Your task to perform on an android device: move an email to a new category in the gmail app Image 0: 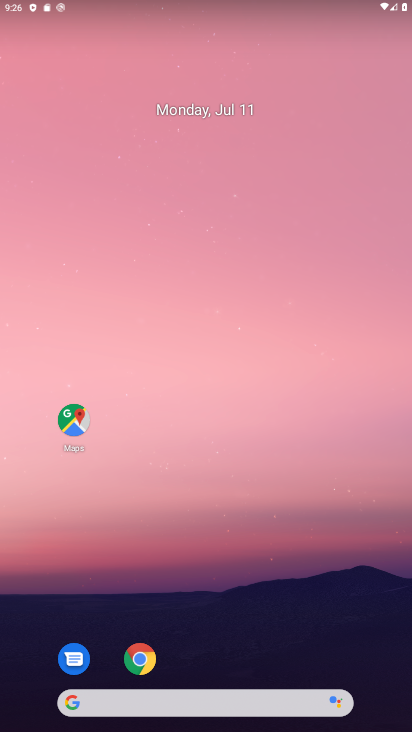
Step 0: drag from (282, 612) to (340, 22)
Your task to perform on an android device: move an email to a new category in the gmail app Image 1: 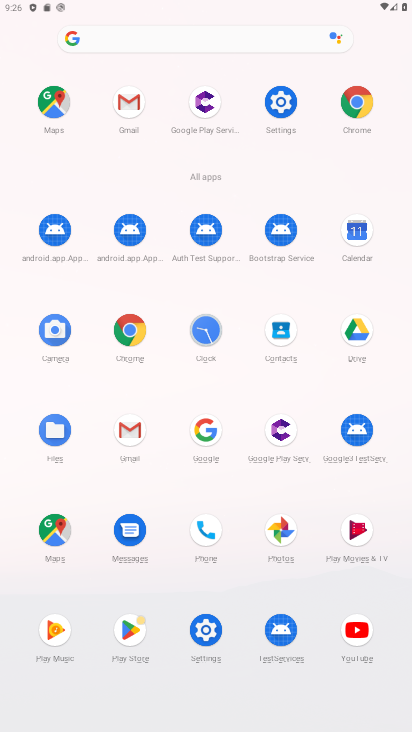
Step 1: click (140, 107)
Your task to perform on an android device: move an email to a new category in the gmail app Image 2: 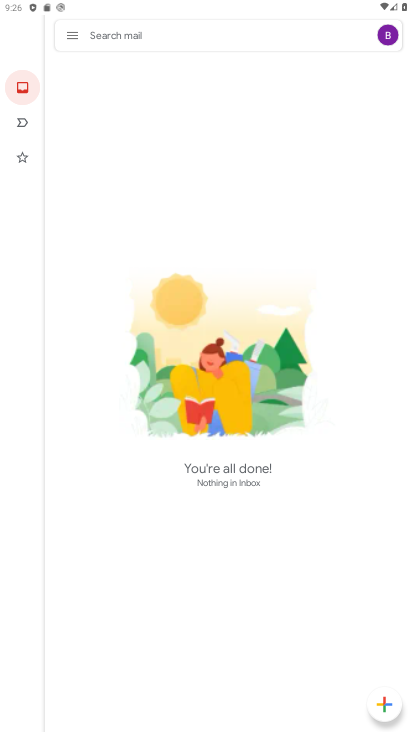
Step 2: press home button
Your task to perform on an android device: move an email to a new category in the gmail app Image 3: 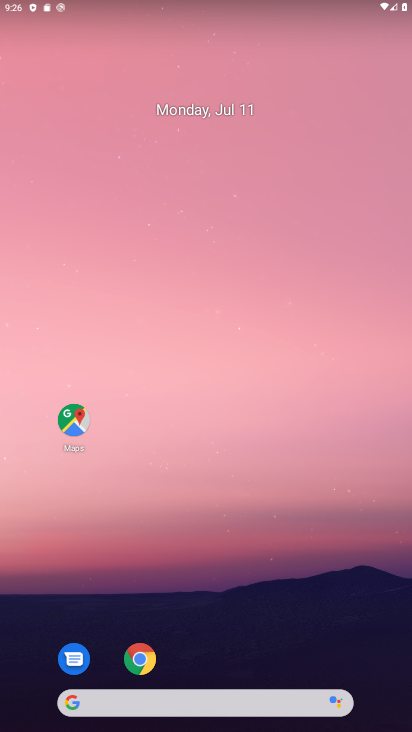
Step 3: drag from (177, 667) to (0, 39)
Your task to perform on an android device: move an email to a new category in the gmail app Image 4: 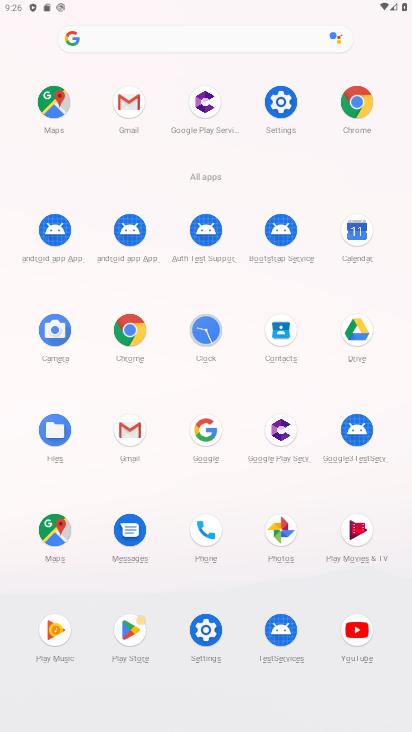
Step 4: click (129, 101)
Your task to perform on an android device: move an email to a new category in the gmail app Image 5: 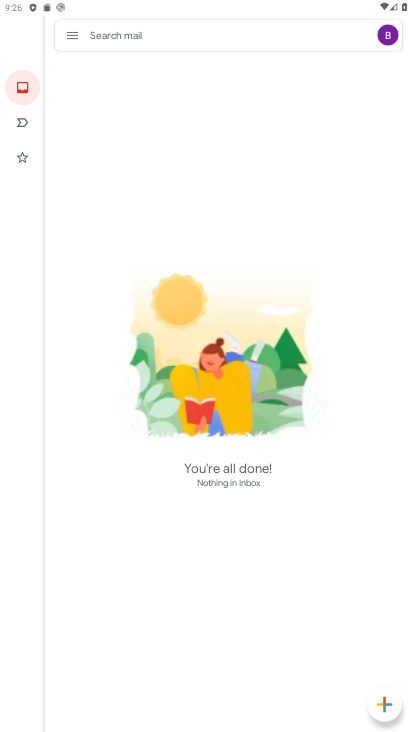
Step 5: task complete